Your task to perform on an android device: Go to display settings Image 0: 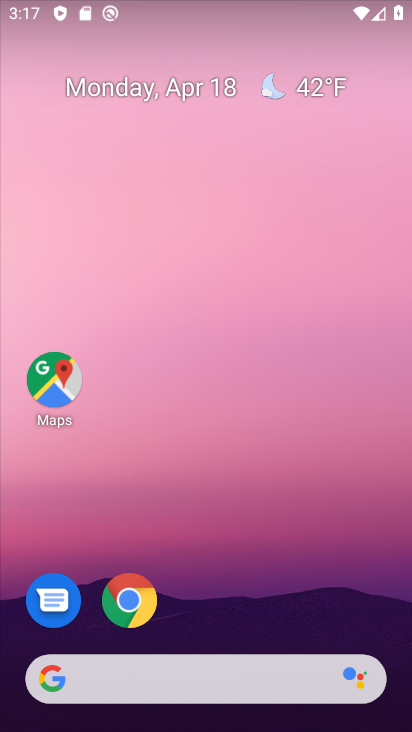
Step 0: drag from (160, 681) to (333, 38)
Your task to perform on an android device: Go to display settings Image 1: 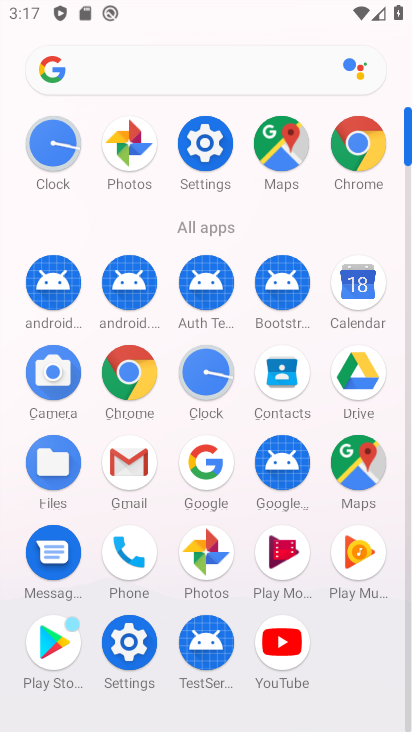
Step 1: click (202, 147)
Your task to perform on an android device: Go to display settings Image 2: 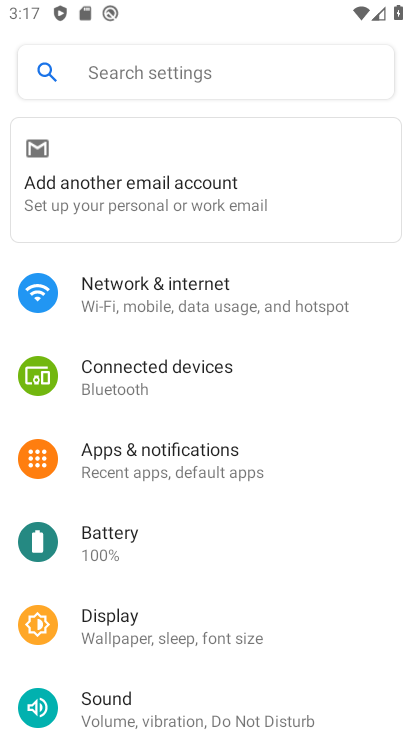
Step 2: drag from (137, 604) to (252, 268)
Your task to perform on an android device: Go to display settings Image 3: 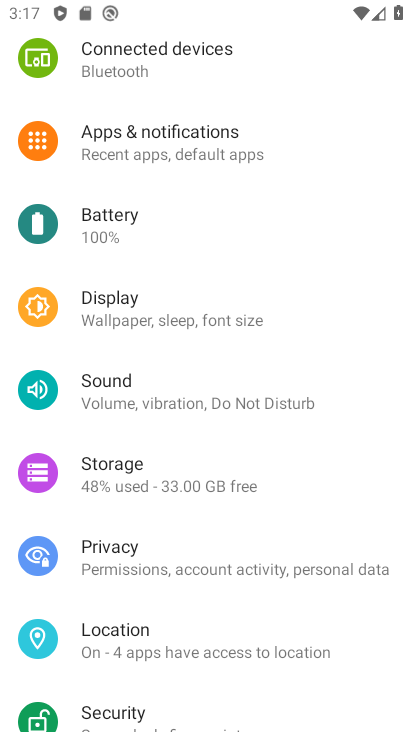
Step 3: click (141, 309)
Your task to perform on an android device: Go to display settings Image 4: 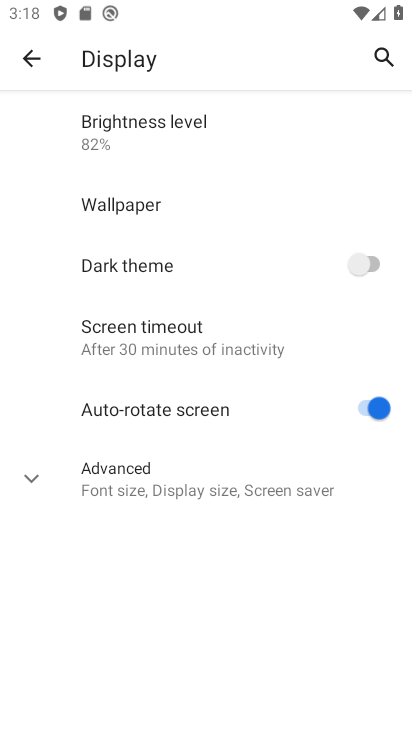
Step 4: task complete